Your task to perform on an android device: turn on wifi Image 0: 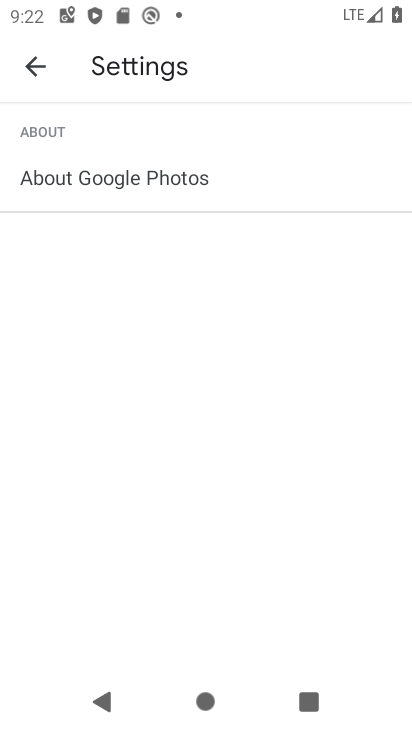
Step 0: press home button
Your task to perform on an android device: turn on wifi Image 1: 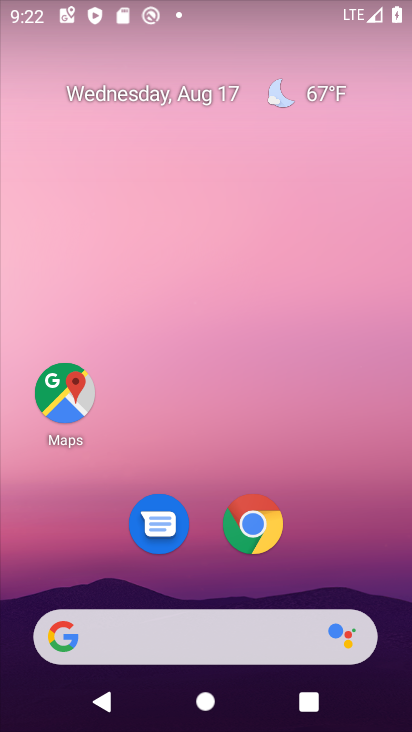
Step 1: drag from (319, 517) to (313, 3)
Your task to perform on an android device: turn on wifi Image 2: 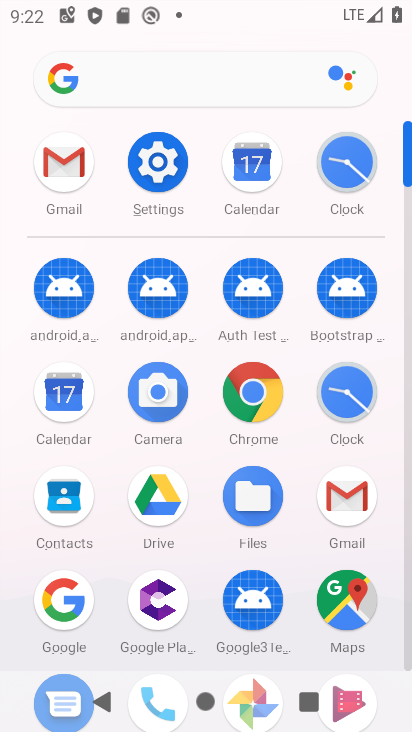
Step 2: click (162, 161)
Your task to perform on an android device: turn on wifi Image 3: 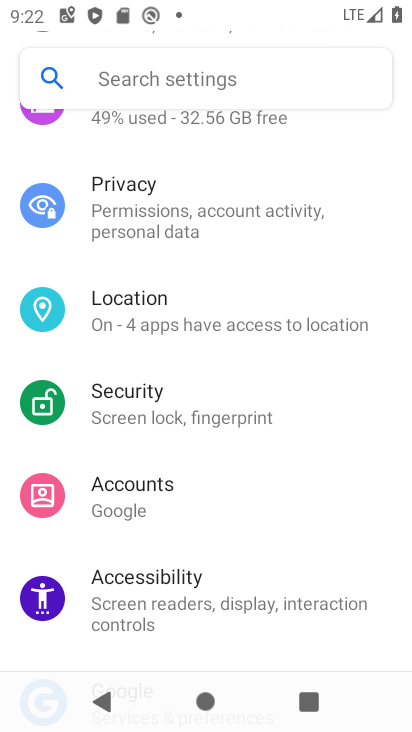
Step 3: drag from (237, 195) to (252, 591)
Your task to perform on an android device: turn on wifi Image 4: 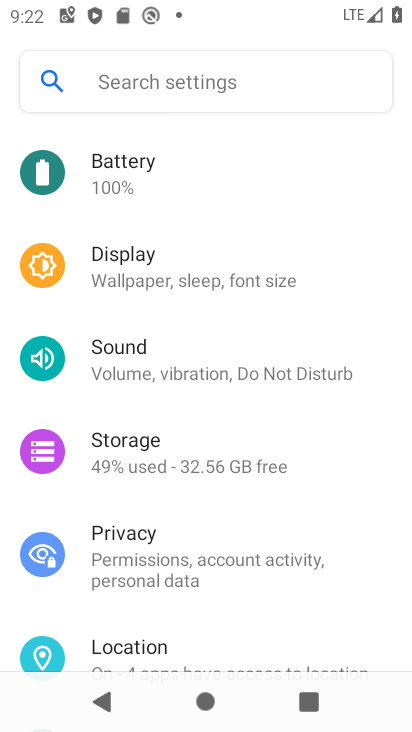
Step 4: drag from (271, 229) to (240, 555)
Your task to perform on an android device: turn on wifi Image 5: 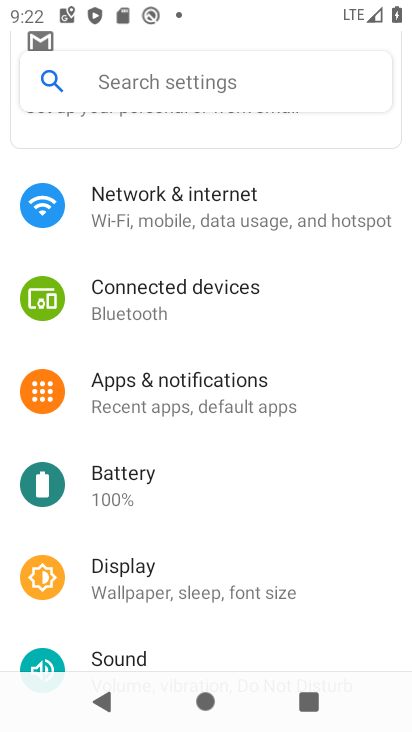
Step 5: click (266, 201)
Your task to perform on an android device: turn on wifi Image 6: 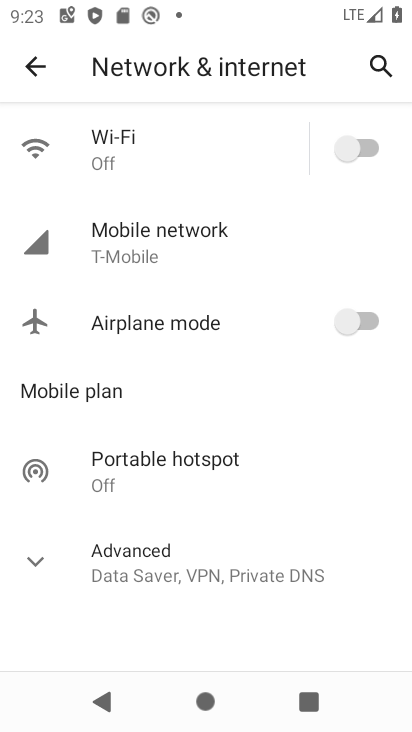
Step 6: click (353, 146)
Your task to perform on an android device: turn on wifi Image 7: 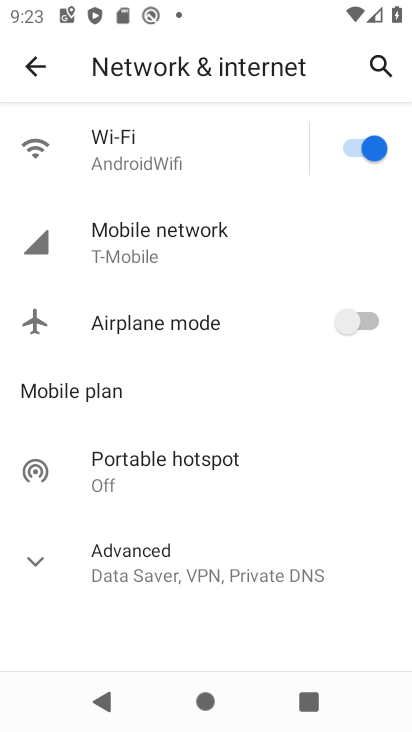
Step 7: task complete